Your task to perform on an android device: Open my contact list Image 0: 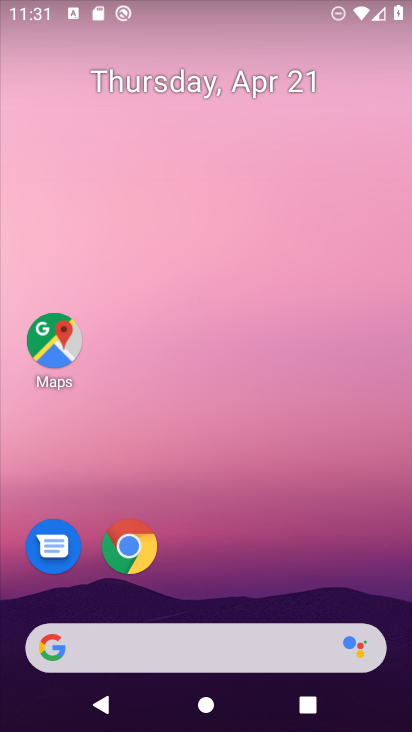
Step 0: drag from (384, 610) to (284, 56)
Your task to perform on an android device: Open my contact list Image 1: 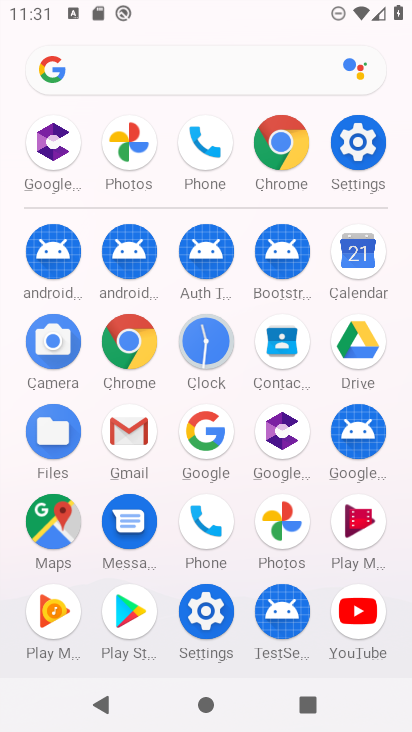
Step 1: click (197, 517)
Your task to perform on an android device: Open my contact list Image 2: 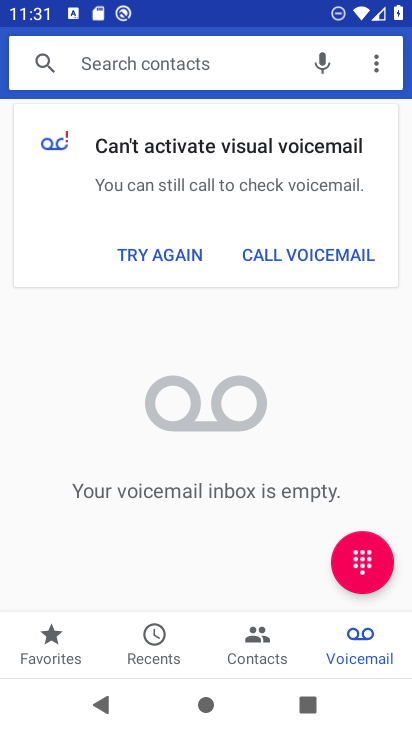
Step 2: click (250, 645)
Your task to perform on an android device: Open my contact list Image 3: 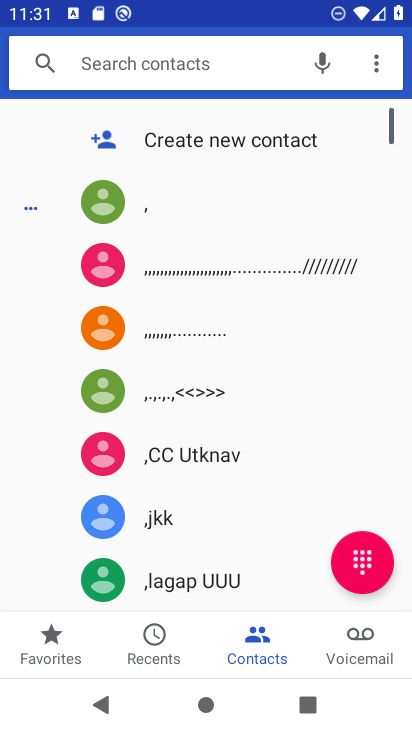
Step 3: task complete